Your task to perform on an android device: Search for razer deathadder on costco.com, select the first entry, add it to the cart, then select checkout. Image 0: 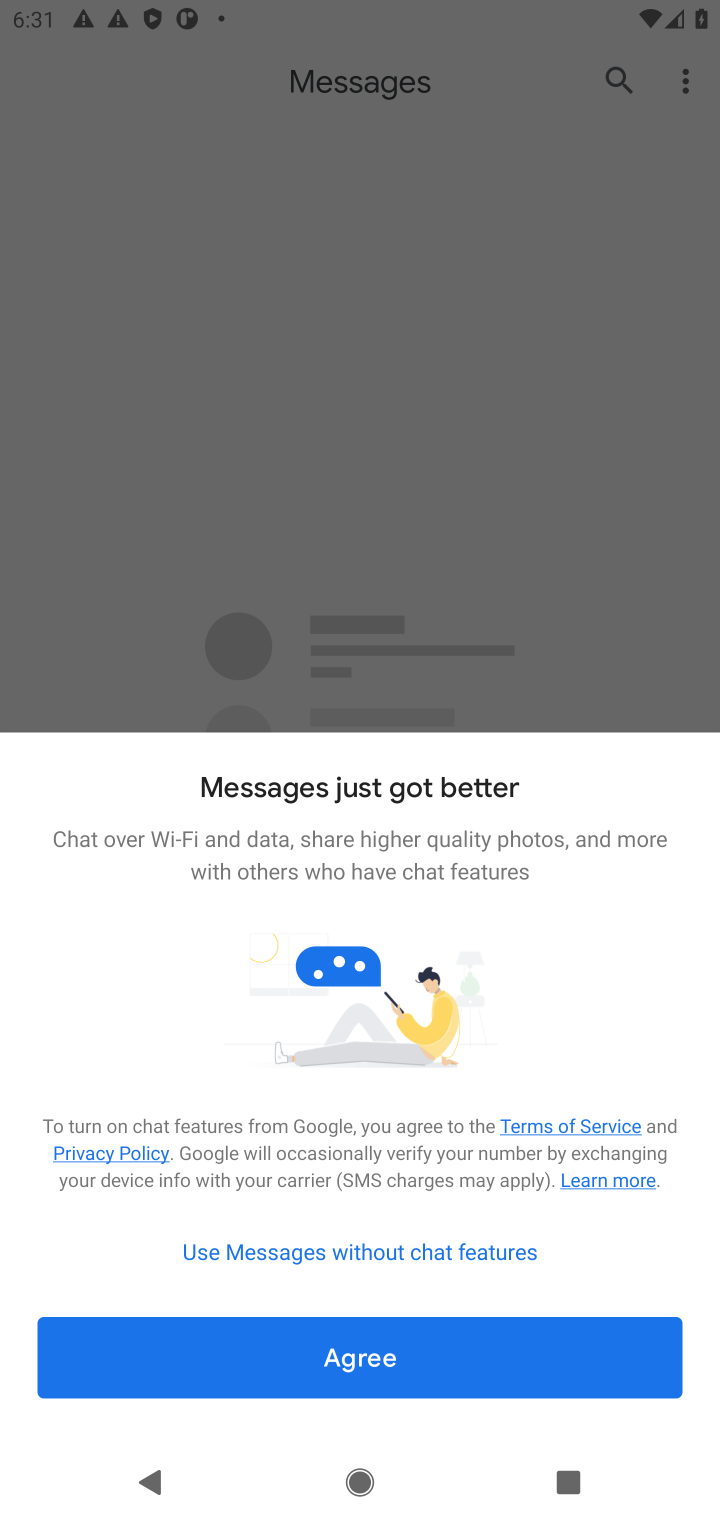
Step 0: press home button
Your task to perform on an android device: Search for razer deathadder on costco.com, select the first entry, add it to the cart, then select checkout. Image 1: 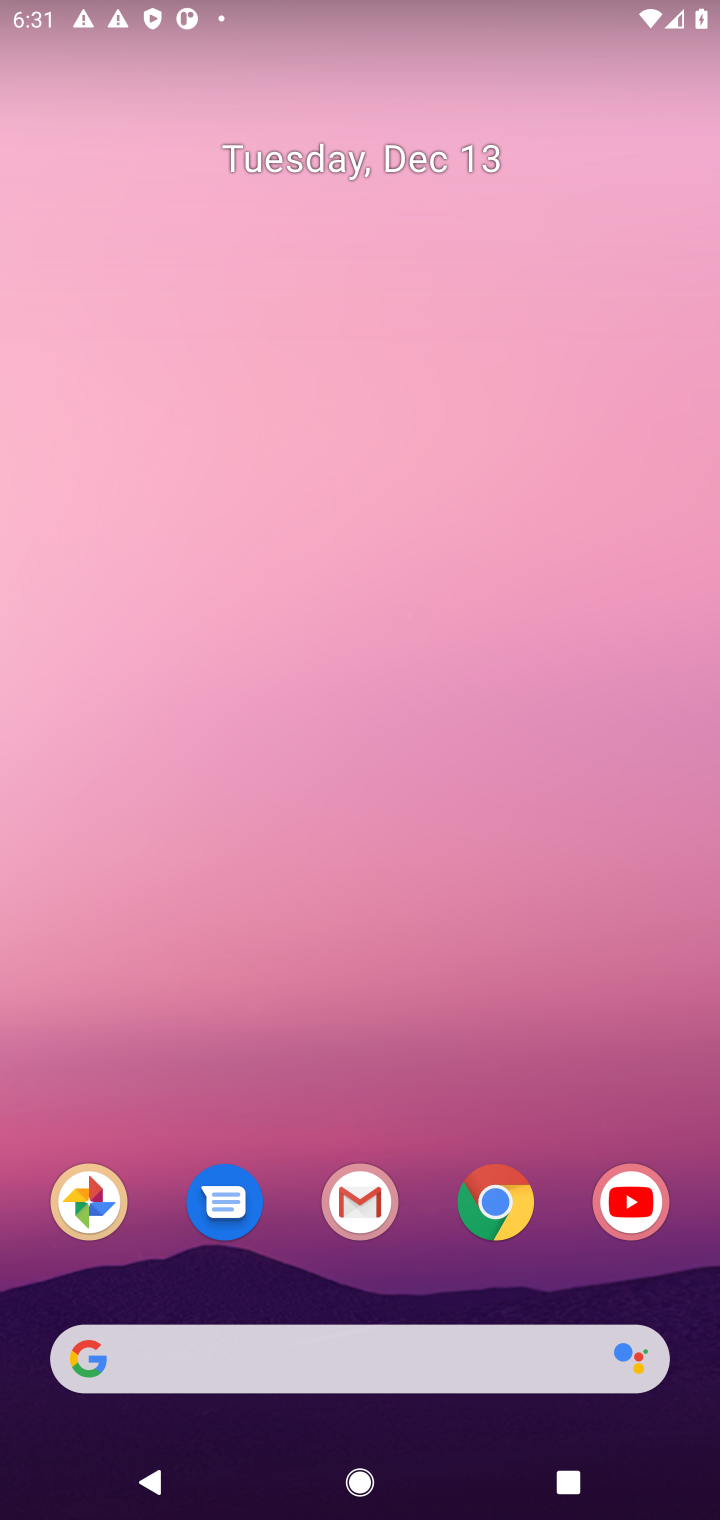
Step 1: click (509, 1212)
Your task to perform on an android device: Search for razer deathadder on costco.com, select the first entry, add it to the cart, then select checkout. Image 2: 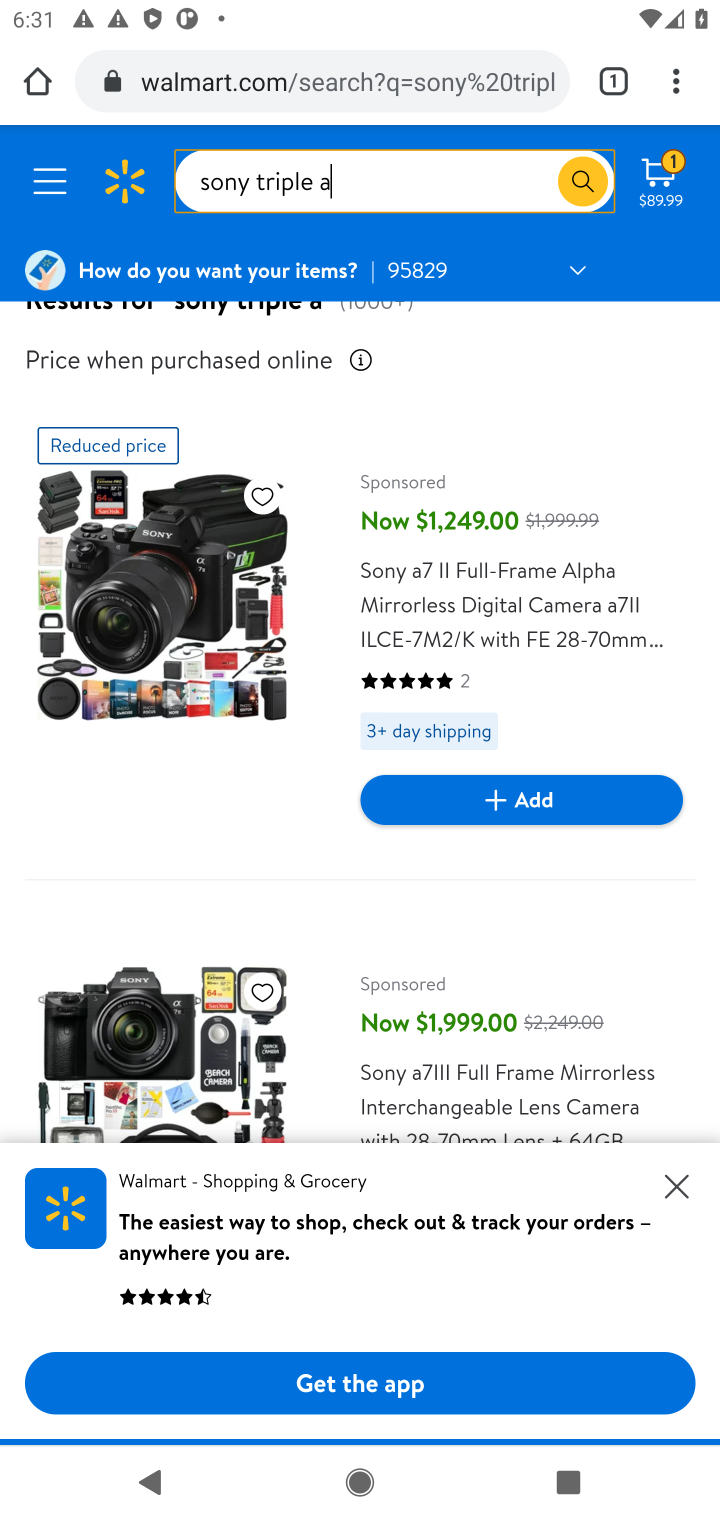
Step 2: click (331, 88)
Your task to perform on an android device: Search for razer deathadder on costco.com, select the first entry, add it to the cart, then select checkout. Image 3: 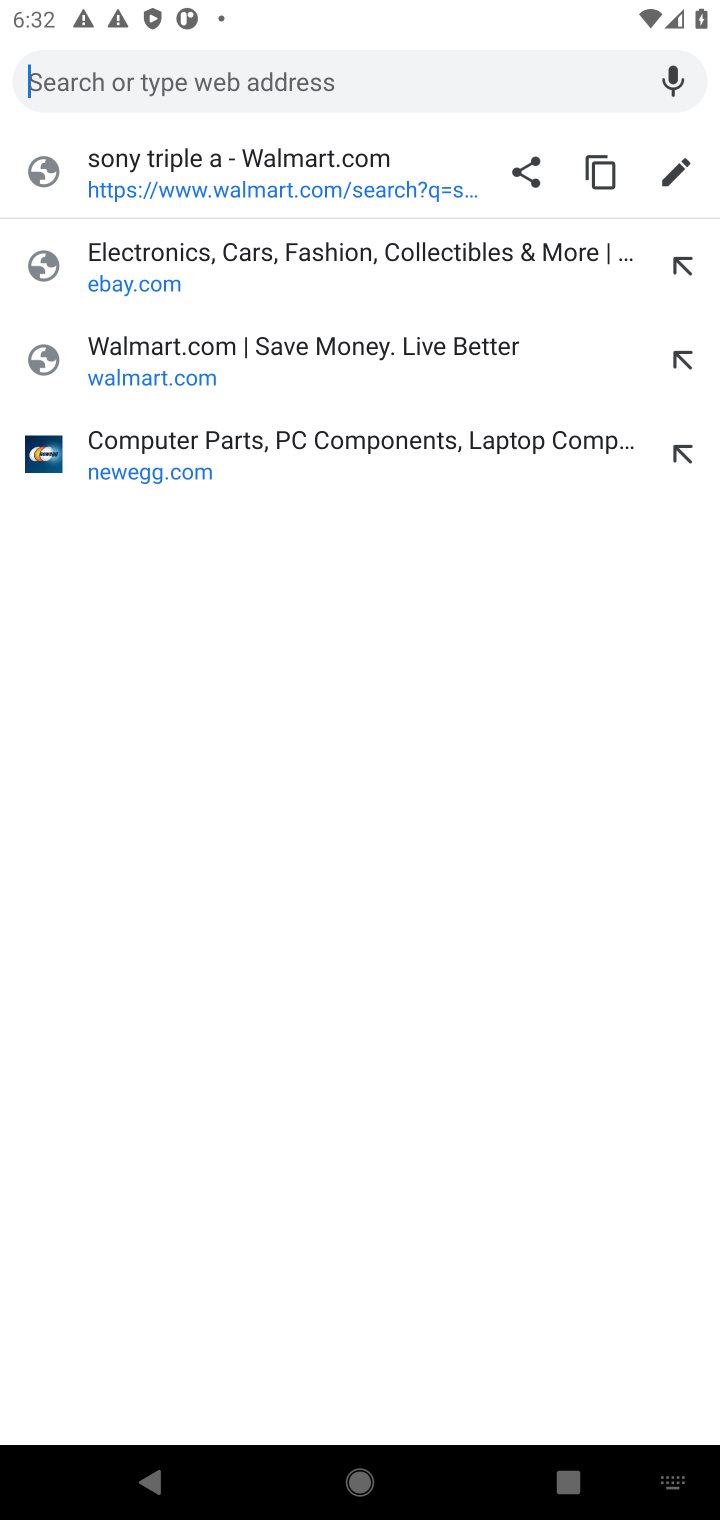
Step 3: type "costco.com"
Your task to perform on an android device: Search for razer deathadder on costco.com, select the first entry, add it to the cart, then select checkout. Image 4: 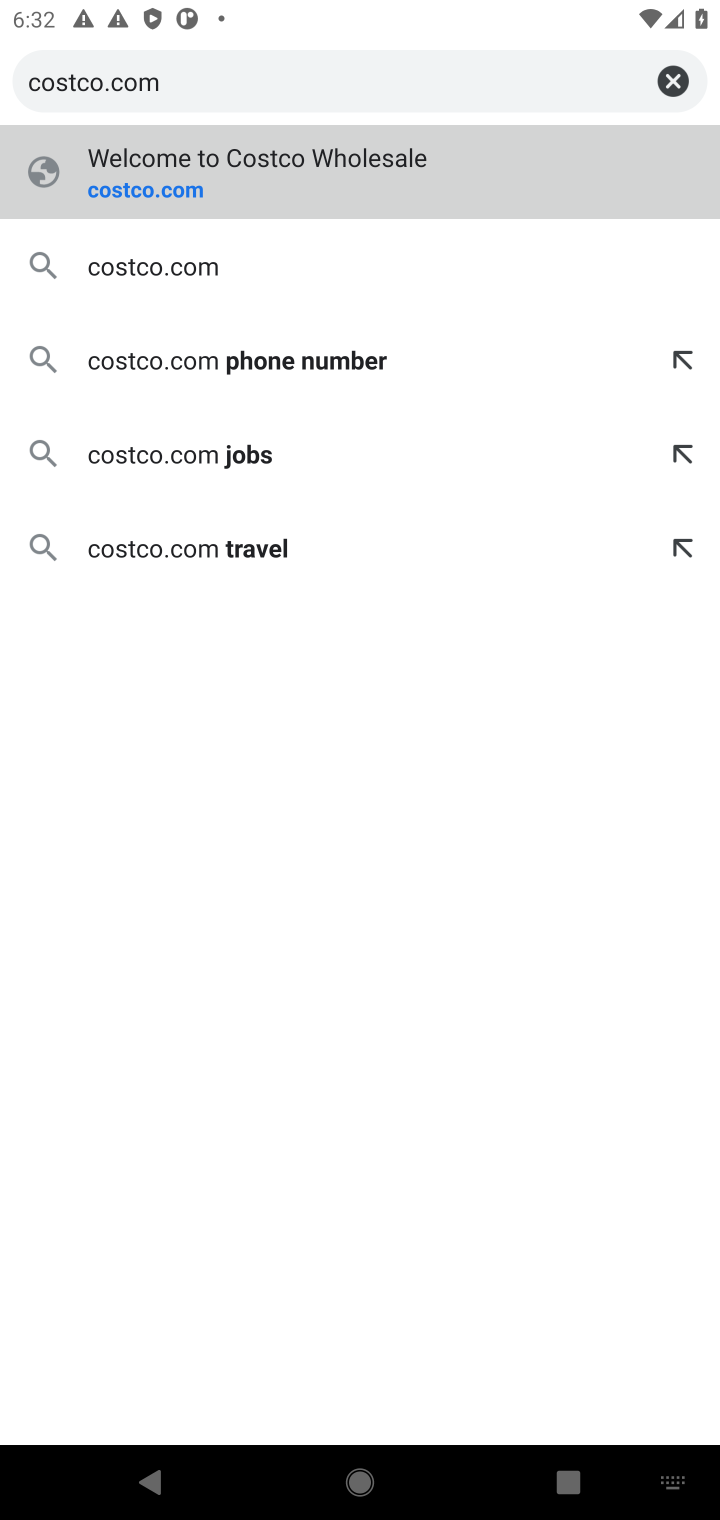
Step 4: click (144, 194)
Your task to perform on an android device: Search for razer deathadder on costco.com, select the first entry, add it to the cart, then select checkout. Image 5: 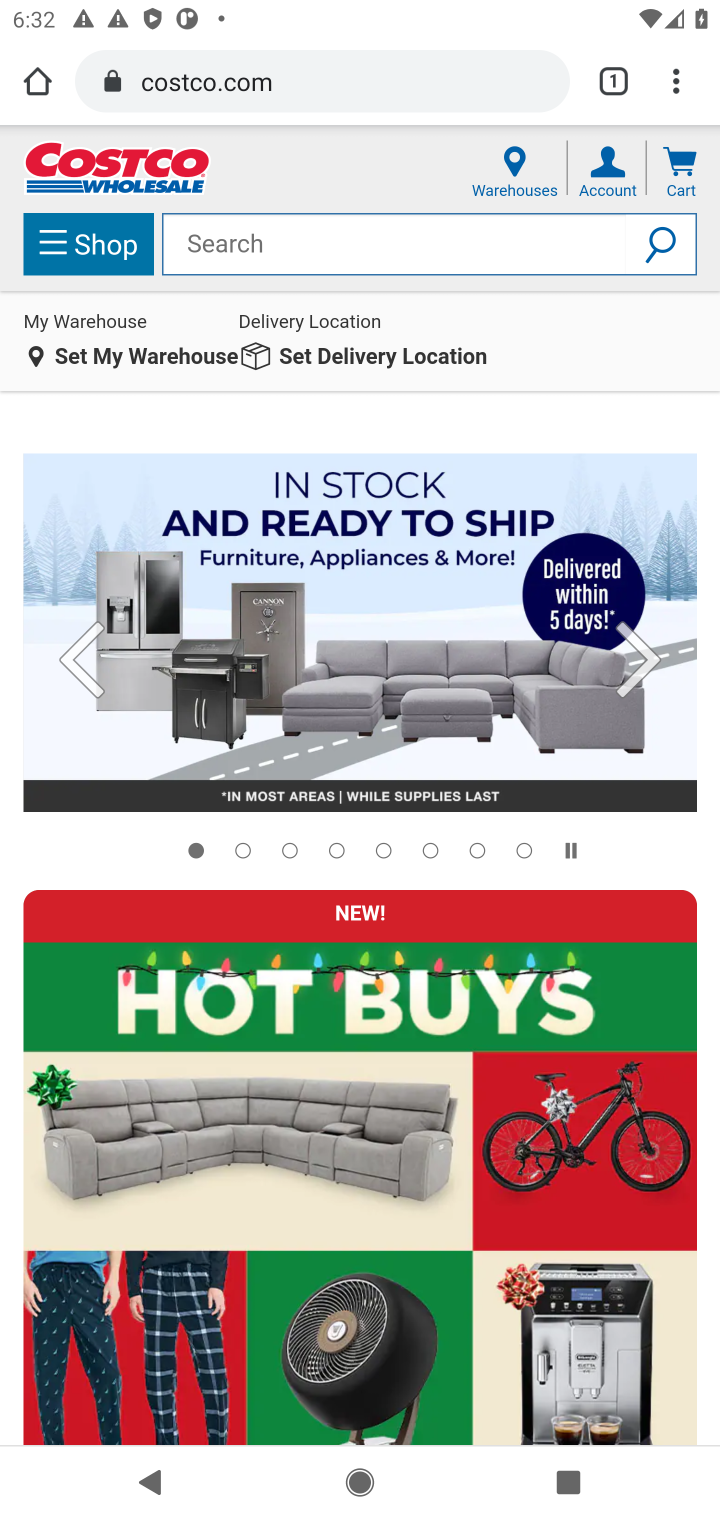
Step 5: click (255, 257)
Your task to perform on an android device: Search for razer deathadder on costco.com, select the first entry, add it to the cart, then select checkout. Image 6: 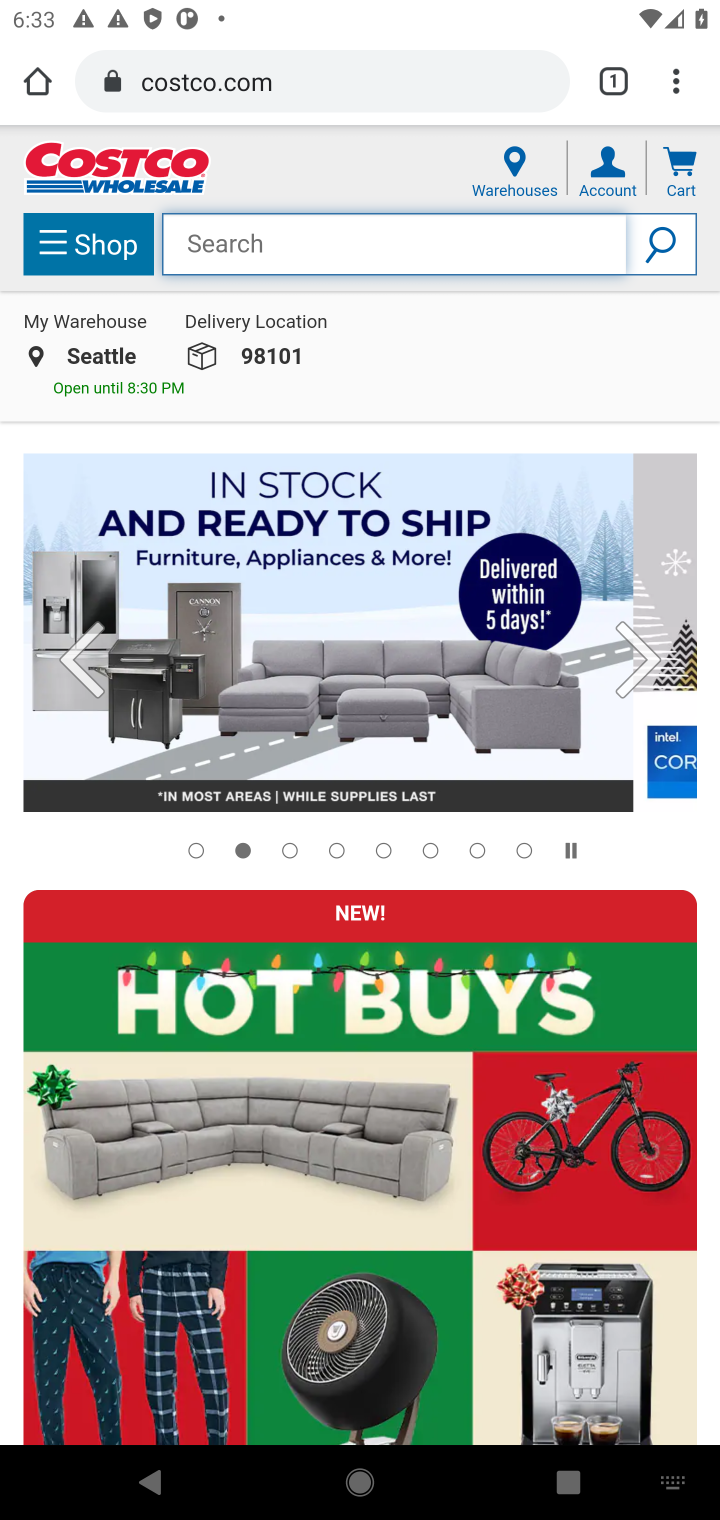
Step 6: type "razer deathadder "
Your task to perform on an android device: Search for razer deathadder on costco.com, select the first entry, add it to the cart, then select checkout. Image 7: 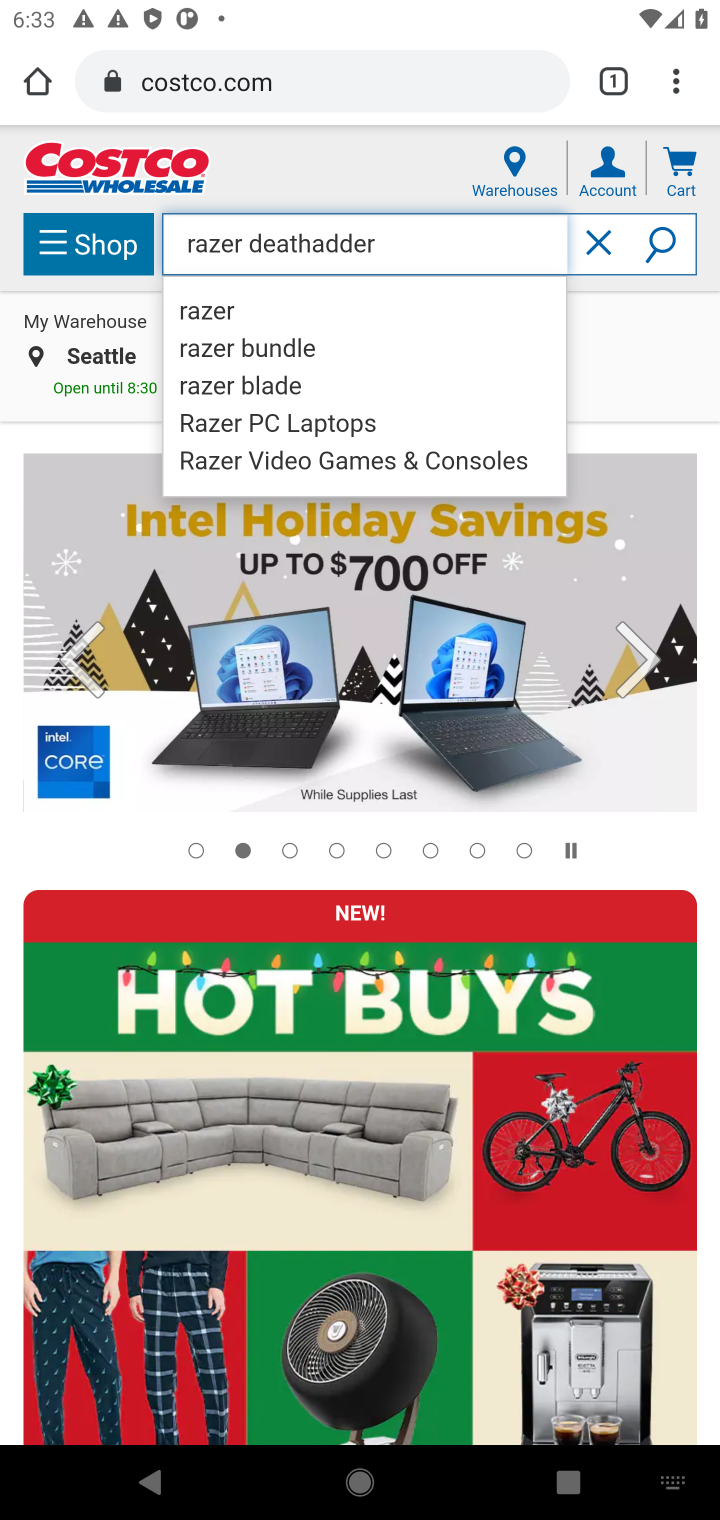
Step 7: click (659, 246)
Your task to perform on an android device: Search for razer deathadder on costco.com, select the first entry, add it to the cart, then select checkout. Image 8: 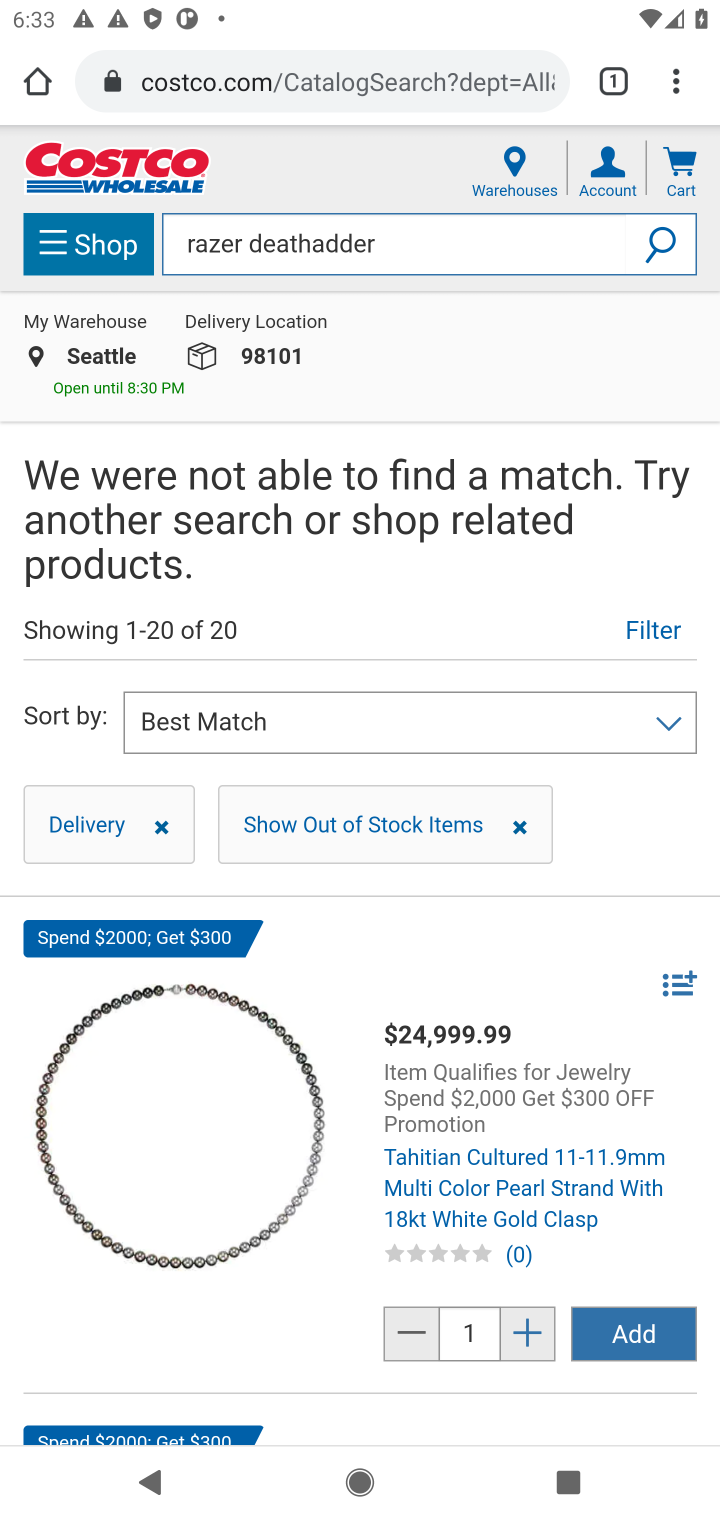
Step 8: task complete